Your task to perform on an android device: change keyboard looks Image 0: 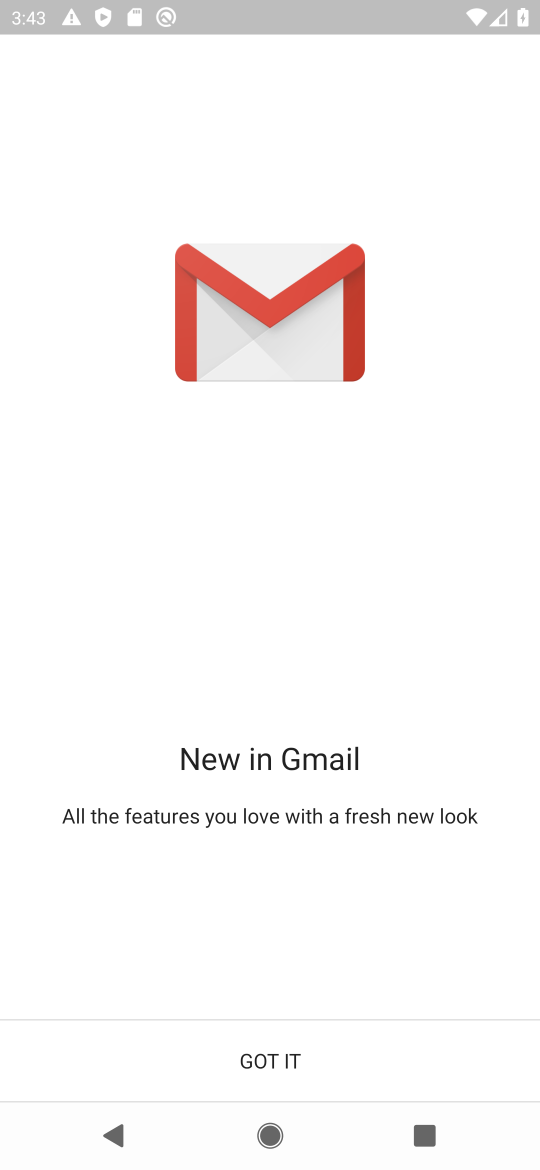
Step 0: press back button
Your task to perform on an android device: change keyboard looks Image 1: 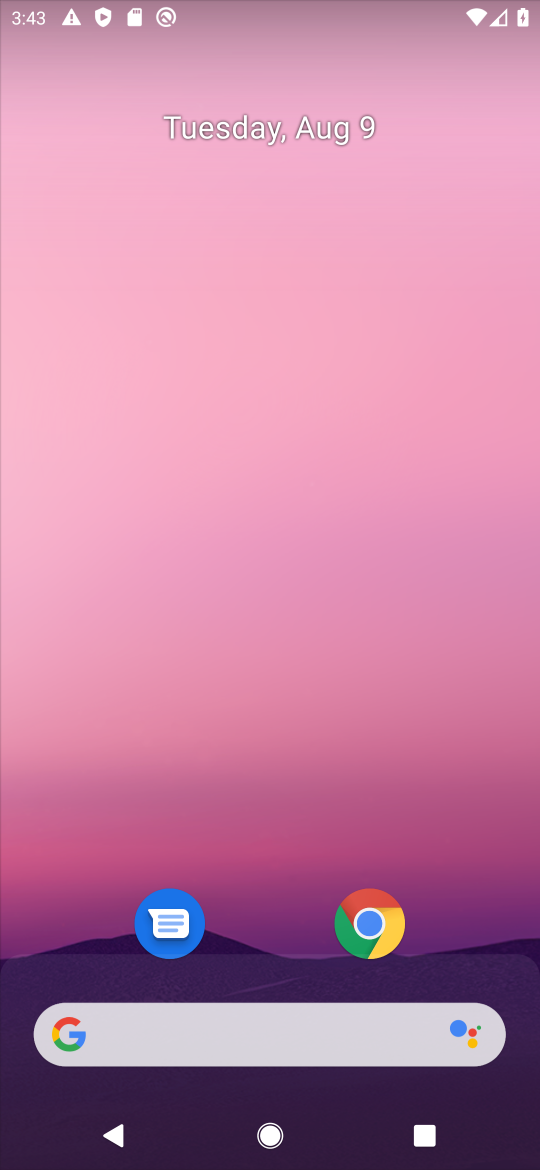
Step 1: drag from (308, 995) to (413, 100)
Your task to perform on an android device: change keyboard looks Image 2: 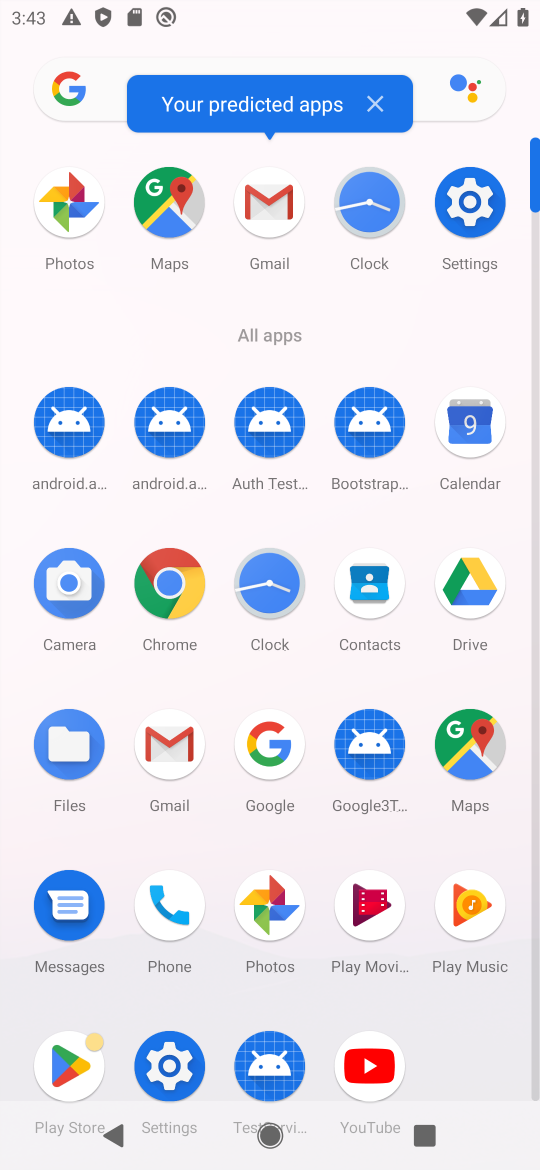
Step 2: click (476, 215)
Your task to perform on an android device: change keyboard looks Image 3: 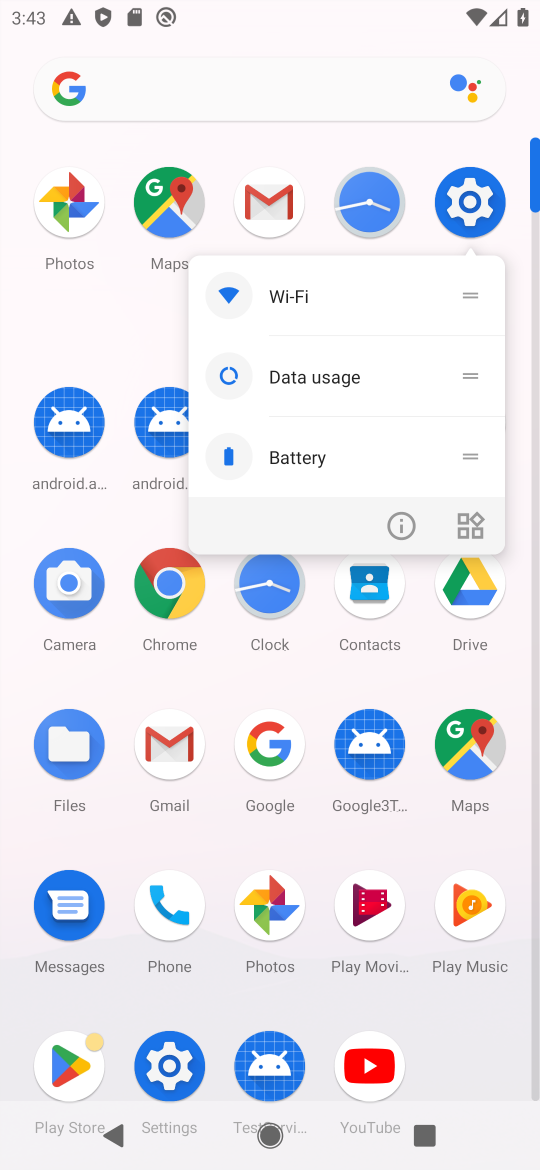
Step 3: click (476, 215)
Your task to perform on an android device: change keyboard looks Image 4: 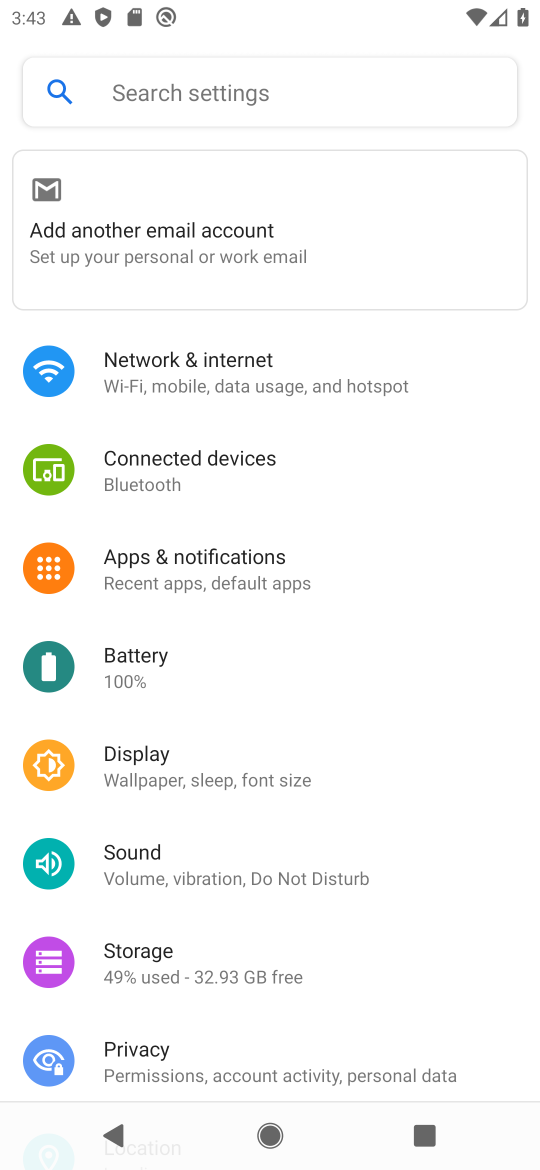
Step 4: drag from (233, 970) to (262, 158)
Your task to perform on an android device: change keyboard looks Image 5: 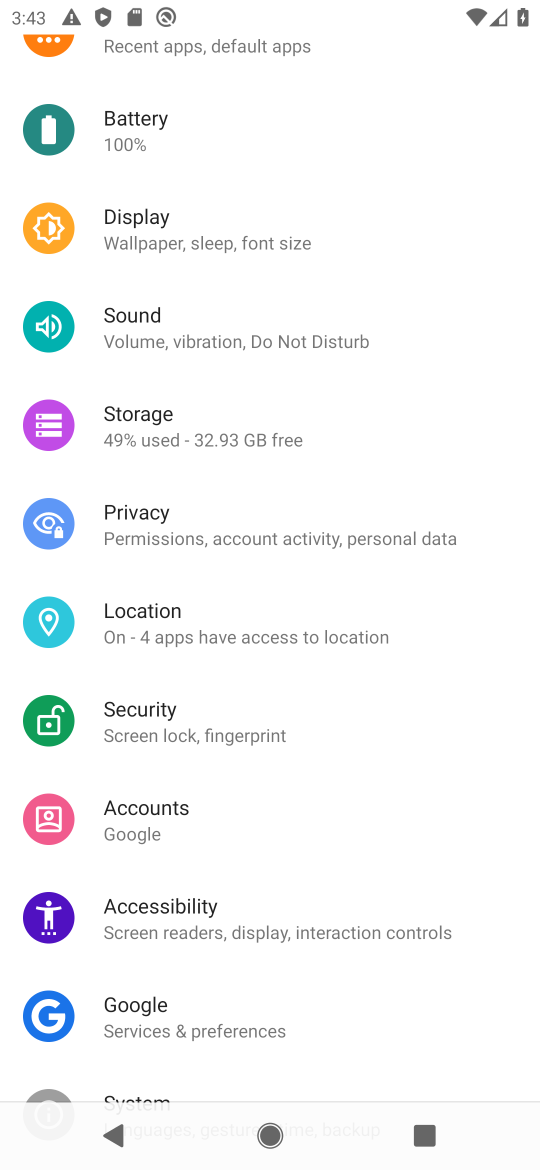
Step 5: drag from (238, 807) to (384, 4)
Your task to perform on an android device: change keyboard looks Image 6: 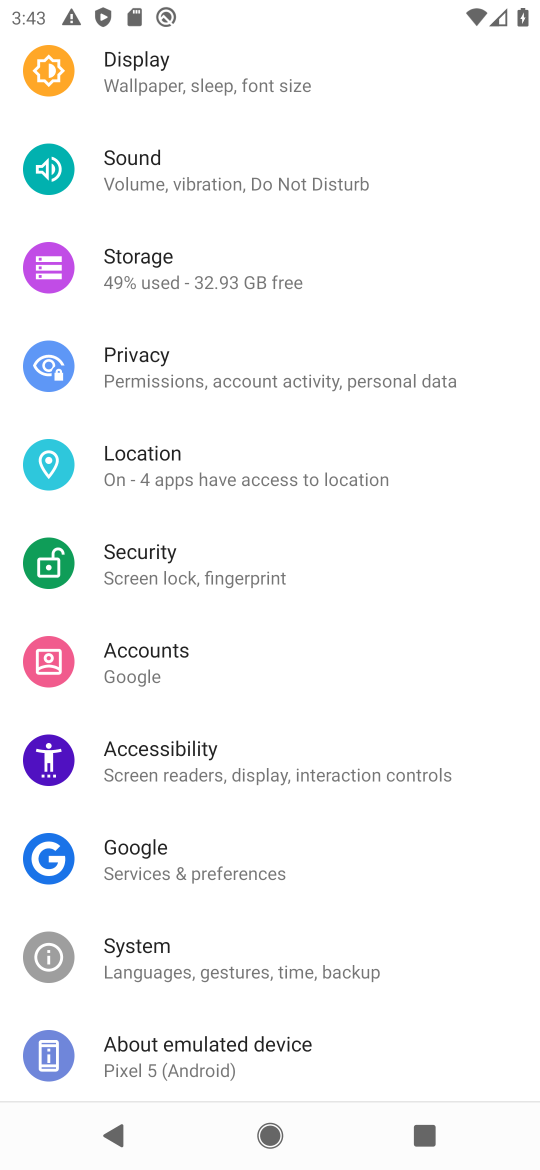
Step 6: click (212, 980)
Your task to perform on an android device: change keyboard looks Image 7: 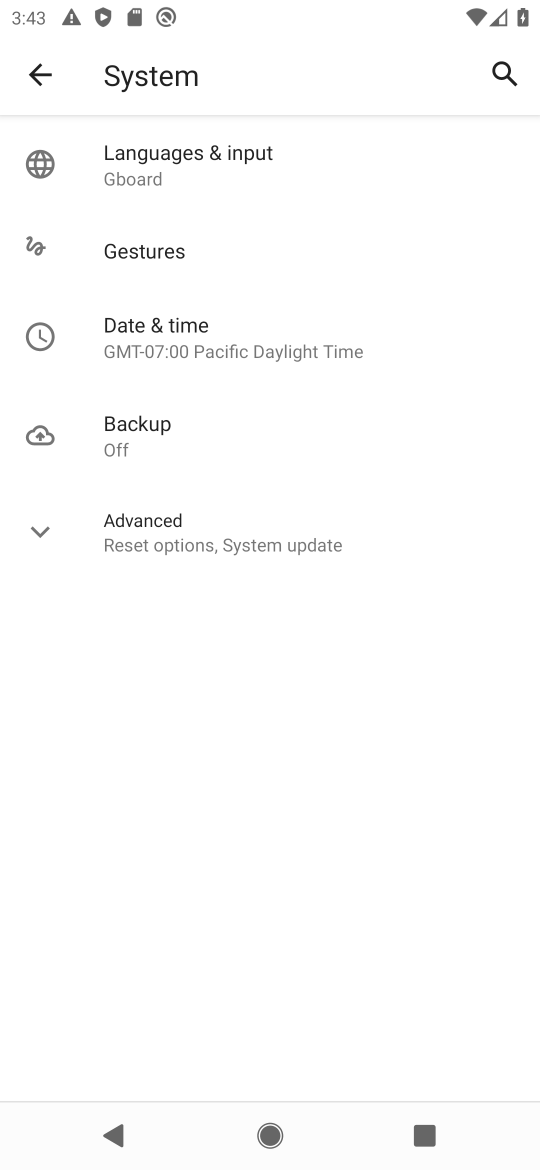
Step 7: click (124, 167)
Your task to perform on an android device: change keyboard looks Image 8: 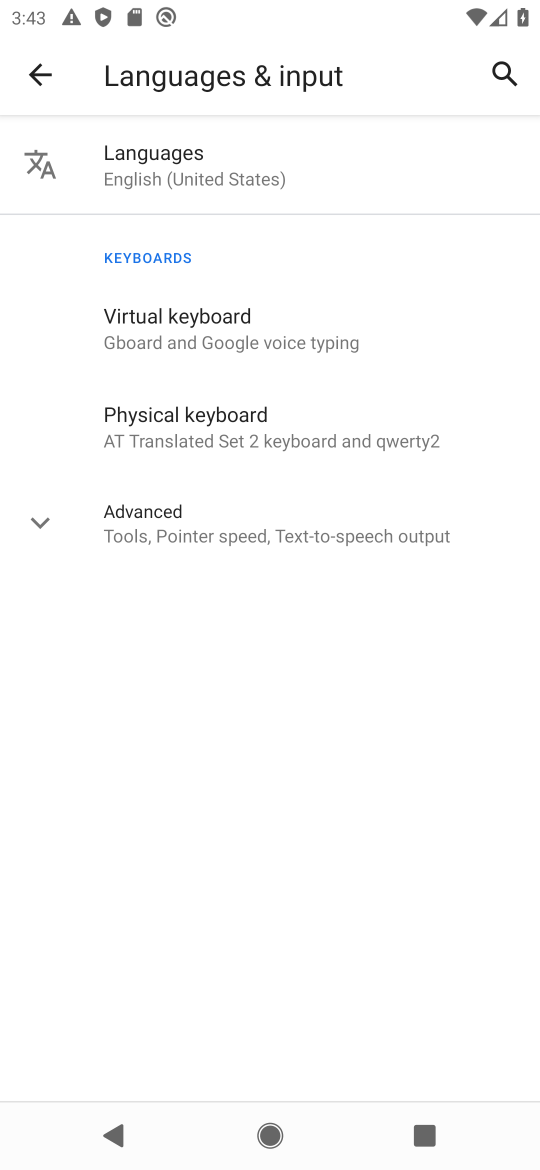
Step 8: click (190, 321)
Your task to perform on an android device: change keyboard looks Image 9: 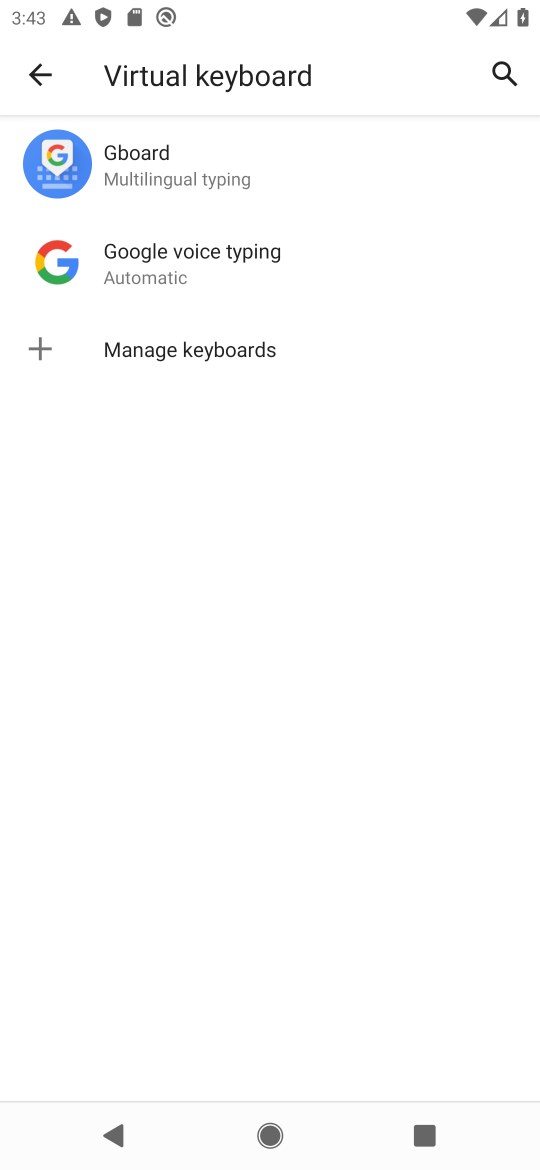
Step 9: click (148, 150)
Your task to perform on an android device: change keyboard looks Image 10: 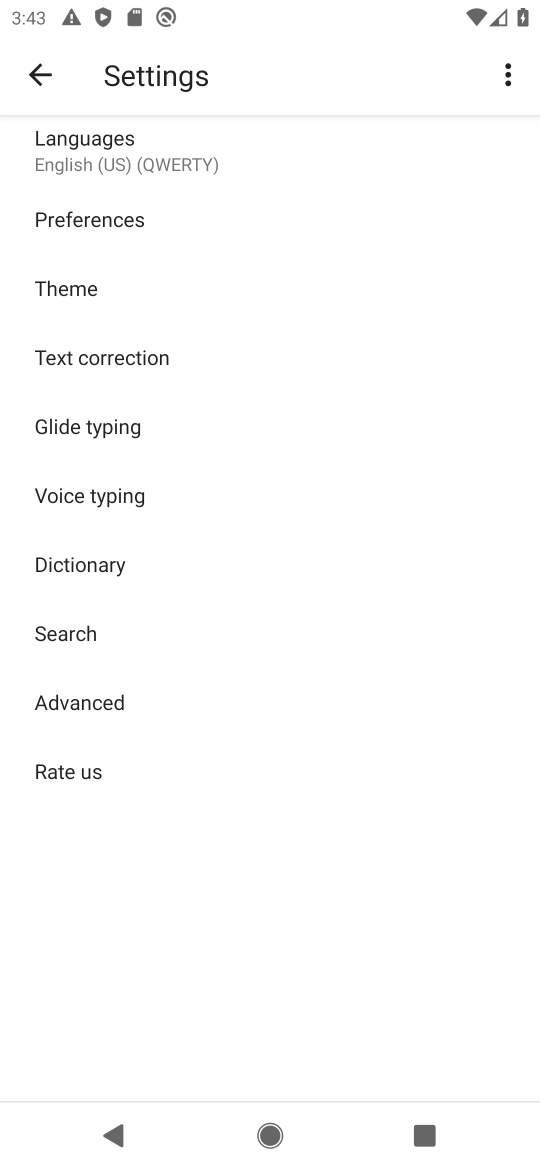
Step 10: click (82, 304)
Your task to perform on an android device: change keyboard looks Image 11: 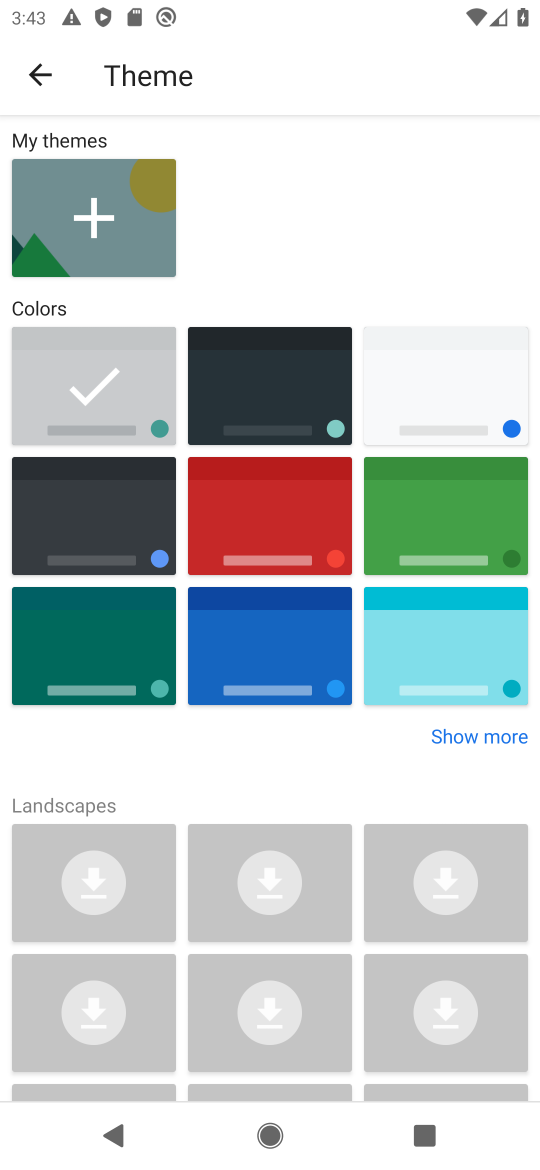
Step 11: click (279, 535)
Your task to perform on an android device: change keyboard looks Image 12: 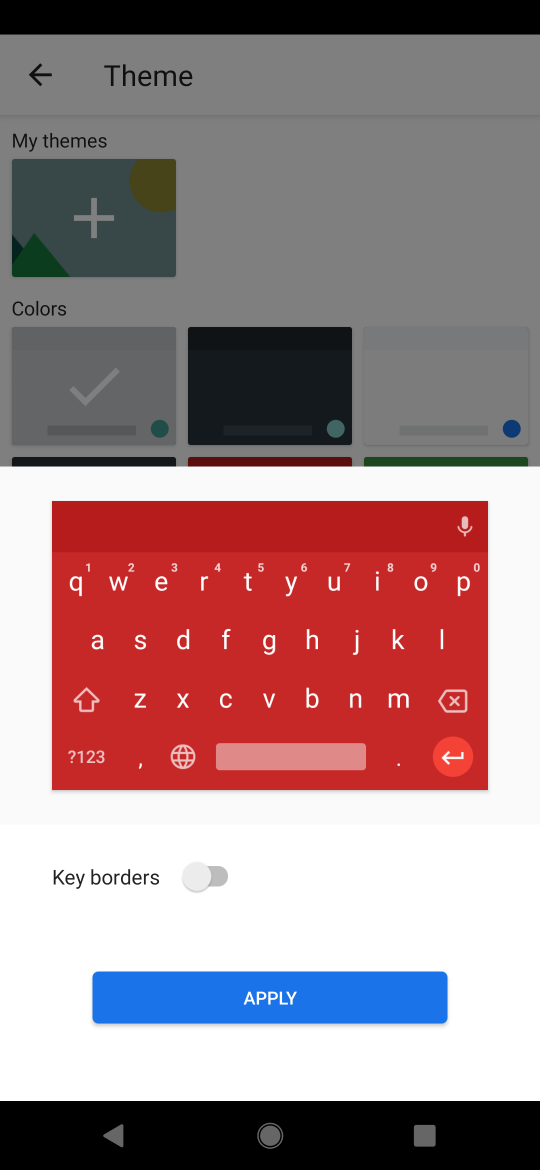
Step 12: click (206, 881)
Your task to perform on an android device: change keyboard looks Image 13: 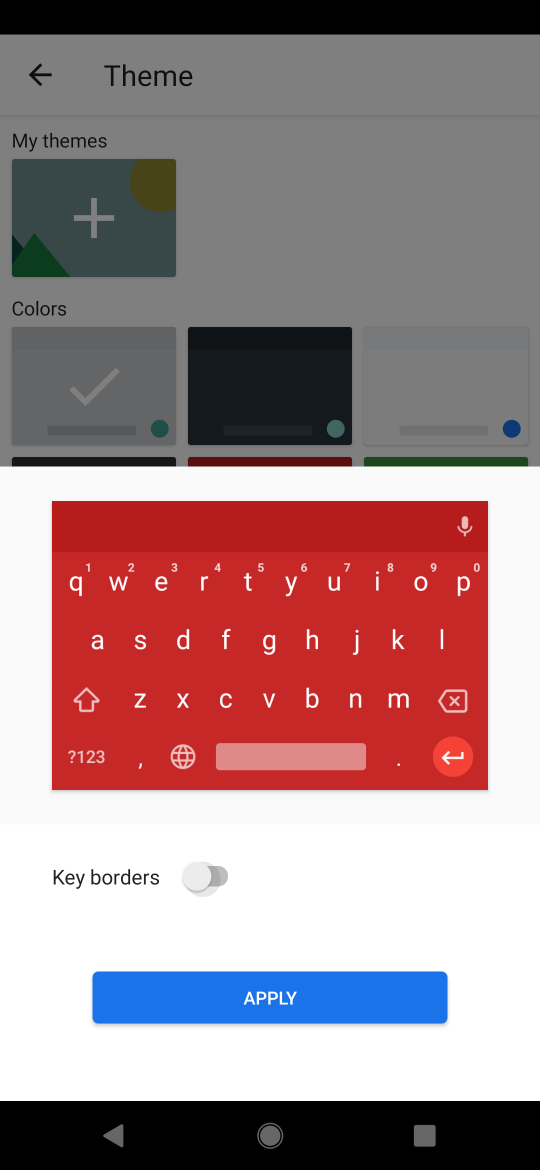
Step 13: click (218, 987)
Your task to perform on an android device: change keyboard looks Image 14: 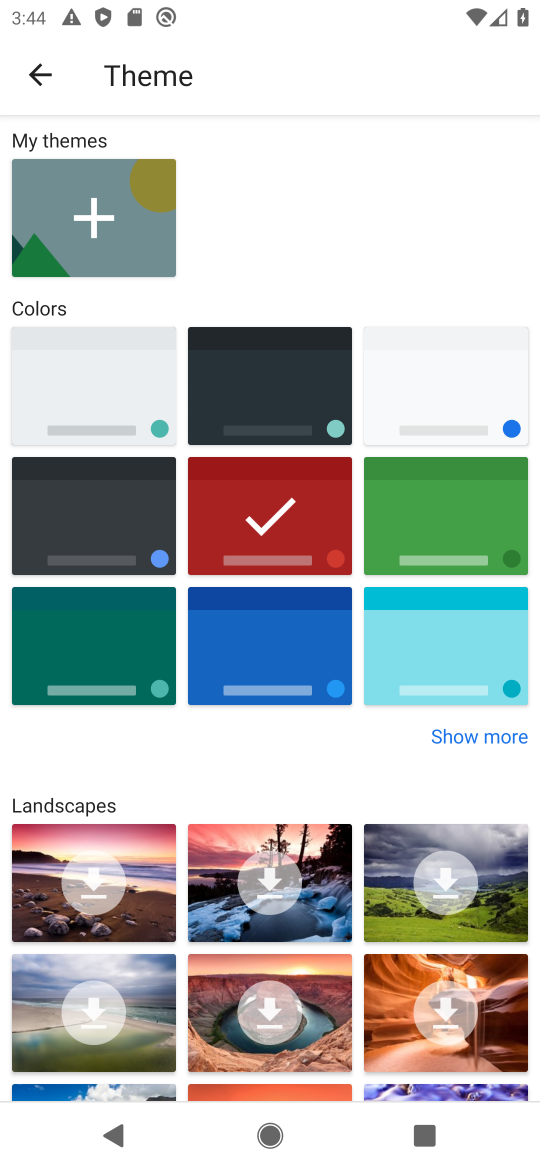
Step 14: task complete